Your task to perform on an android device: choose inbox layout in the gmail app Image 0: 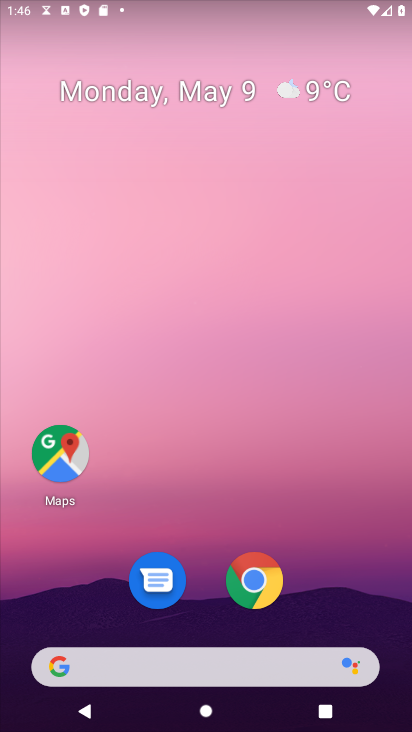
Step 0: drag from (322, 527) to (231, 144)
Your task to perform on an android device: choose inbox layout in the gmail app Image 1: 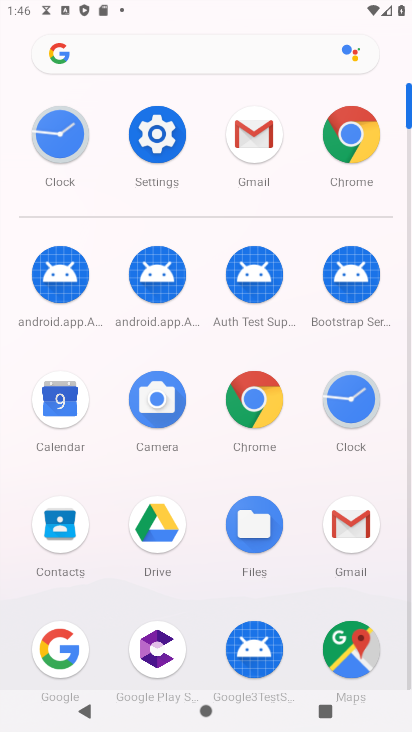
Step 1: click (351, 520)
Your task to perform on an android device: choose inbox layout in the gmail app Image 2: 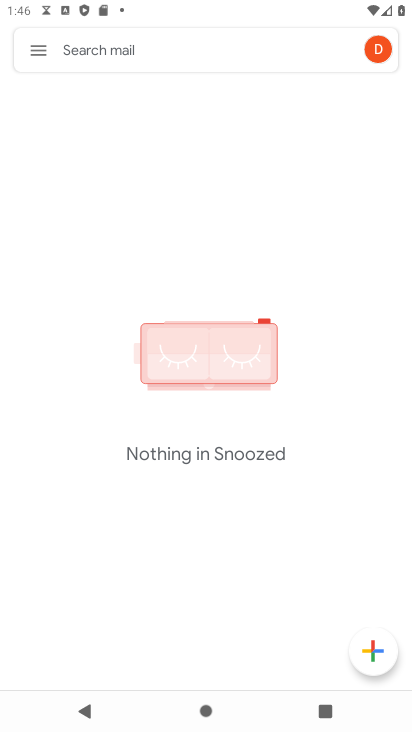
Step 2: click (42, 59)
Your task to perform on an android device: choose inbox layout in the gmail app Image 3: 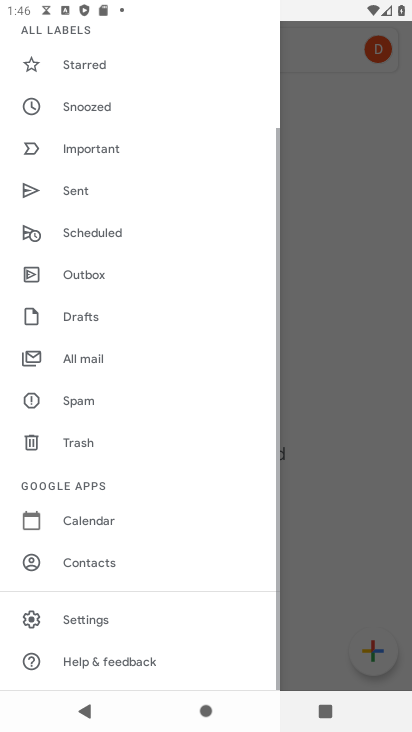
Step 3: click (118, 616)
Your task to perform on an android device: choose inbox layout in the gmail app Image 4: 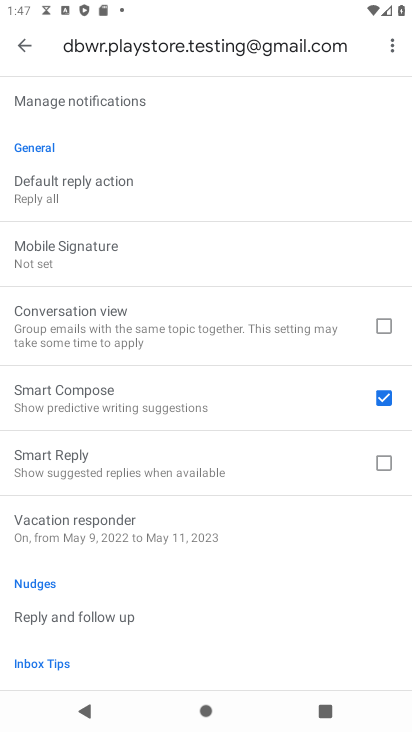
Step 4: click (95, 189)
Your task to perform on an android device: choose inbox layout in the gmail app Image 5: 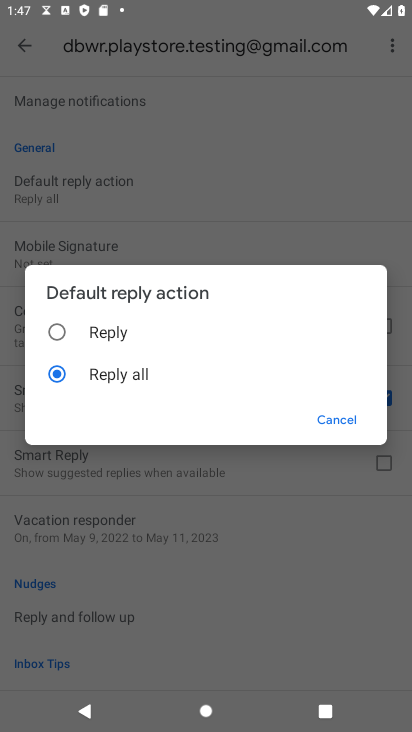
Step 5: click (183, 519)
Your task to perform on an android device: choose inbox layout in the gmail app Image 6: 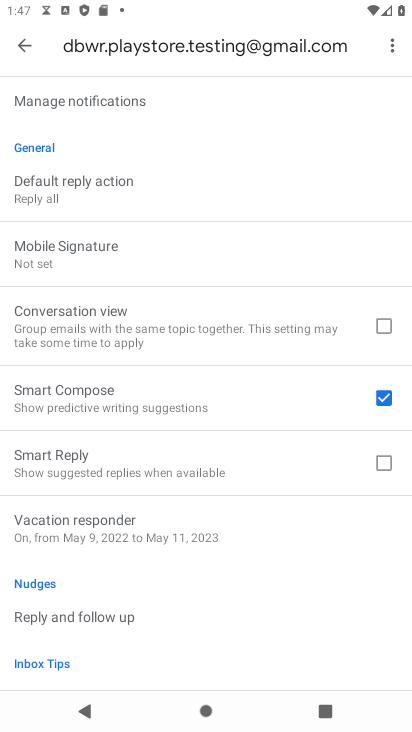
Step 6: drag from (189, 158) to (165, 692)
Your task to perform on an android device: choose inbox layout in the gmail app Image 7: 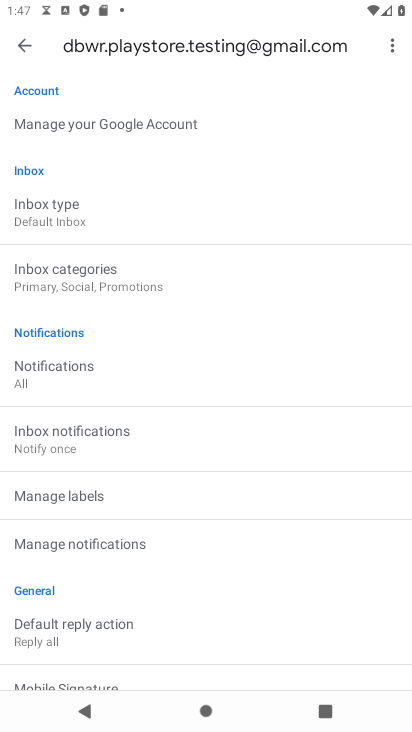
Step 7: click (122, 183)
Your task to perform on an android device: choose inbox layout in the gmail app Image 8: 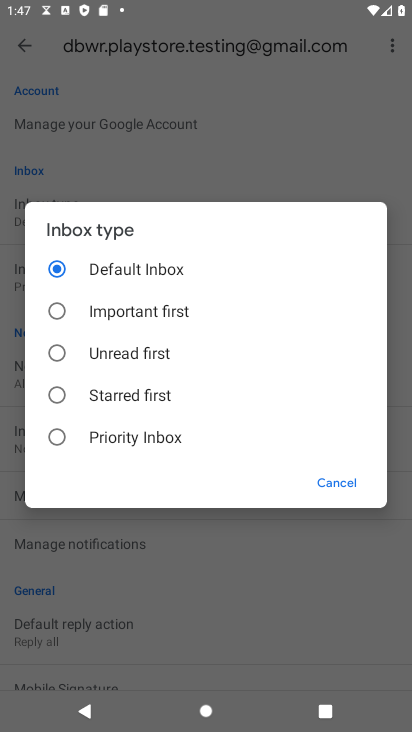
Step 8: click (126, 344)
Your task to perform on an android device: choose inbox layout in the gmail app Image 9: 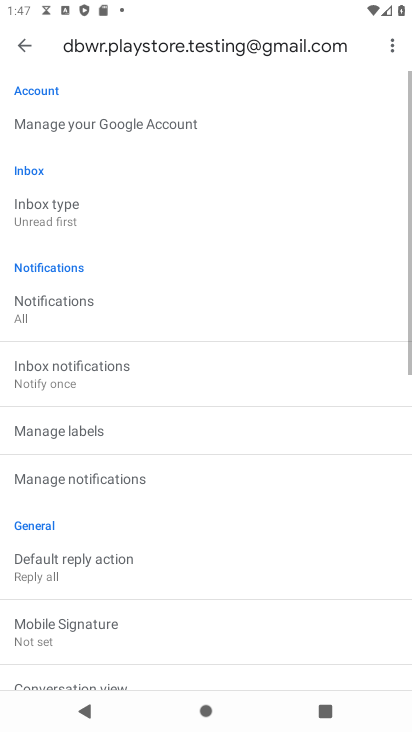
Step 9: task complete